Your task to perform on an android device: turn on data saver in the chrome app Image 0: 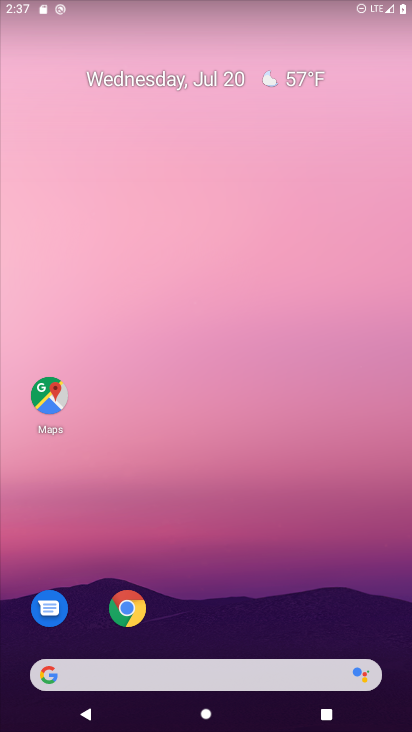
Step 0: click (128, 610)
Your task to perform on an android device: turn on data saver in the chrome app Image 1: 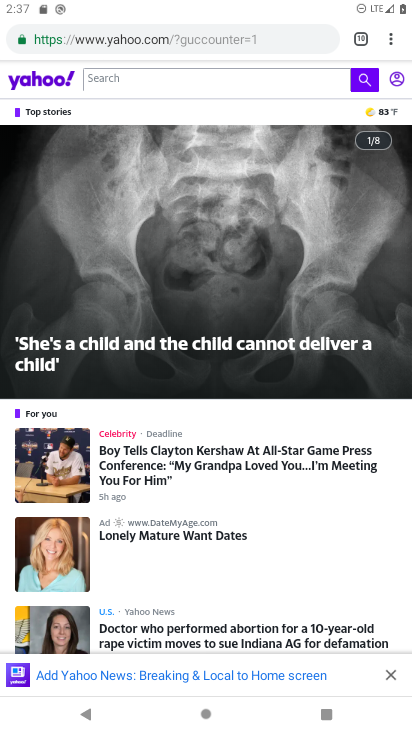
Step 1: click (392, 44)
Your task to perform on an android device: turn on data saver in the chrome app Image 2: 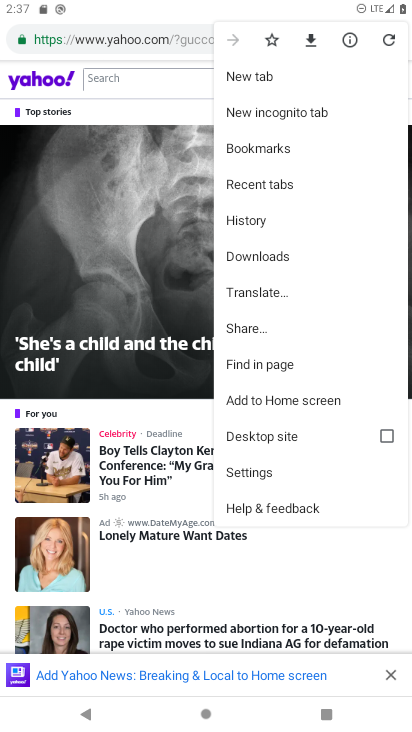
Step 2: click (246, 472)
Your task to perform on an android device: turn on data saver in the chrome app Image 3: 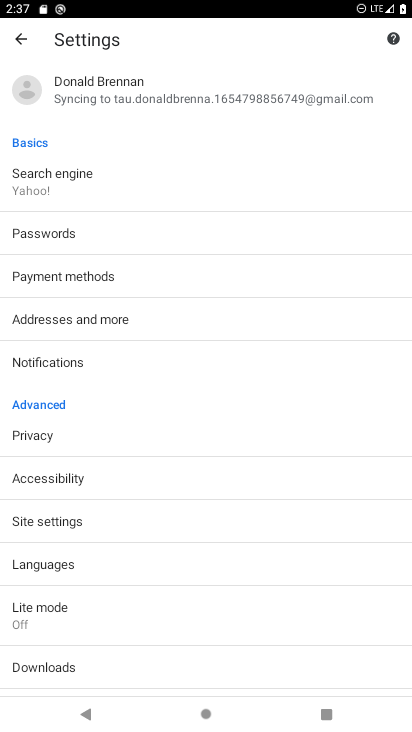
Step 3: click (40, 606)
Your task to perform on an android device: turn on data saver in the chrome app Image 4: 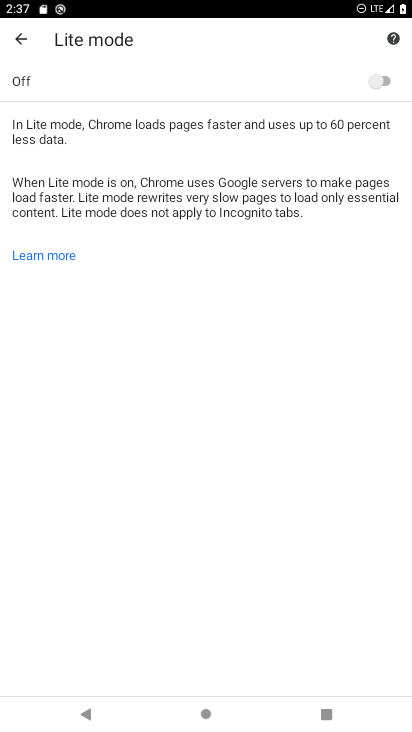
Step 4: click (386, 77)
Your task to perform on an android device: turn on data saver in the chrome app Image 5: 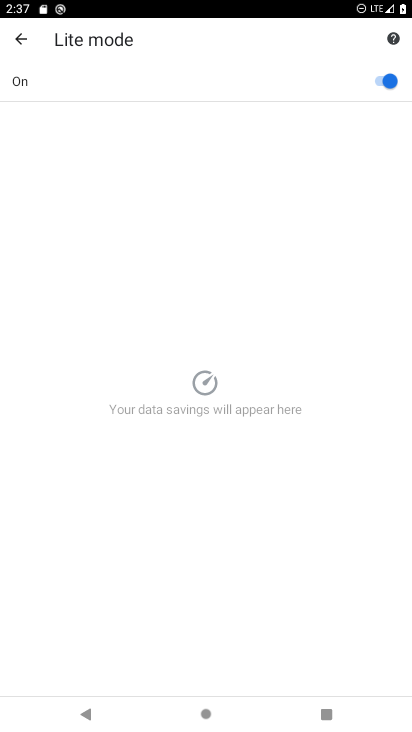
Step 5: task complete